Your task to perform on an android device: change the clock style Image 0: 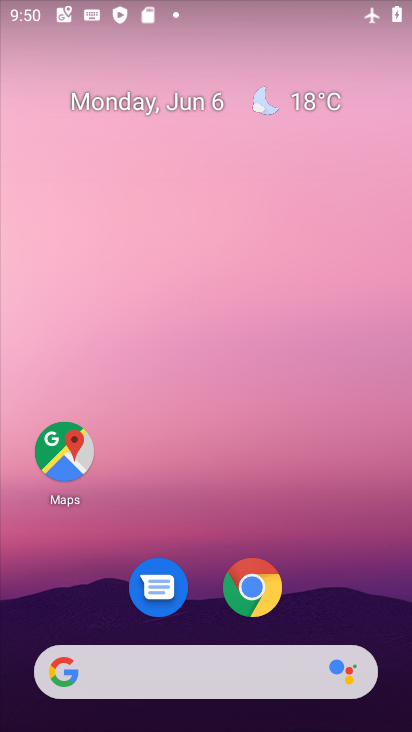
Step 0: drag from (338, 554) to (300, 132)
Your task to perform on an android device: change the clock style Image 1: 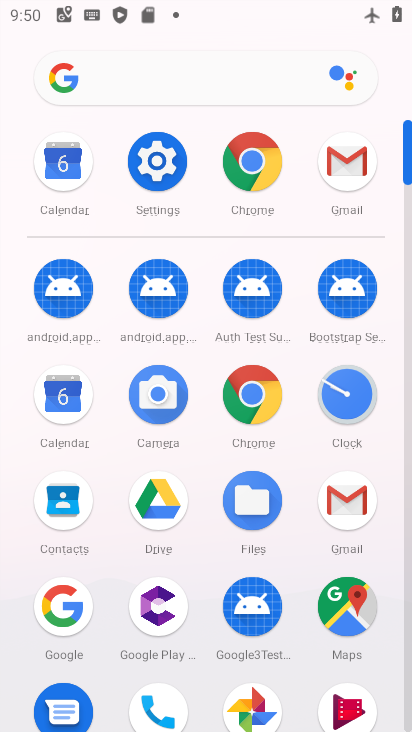
Step 1: click (352, 404)
Your task to perform on an android device: change the clock style Image 2: 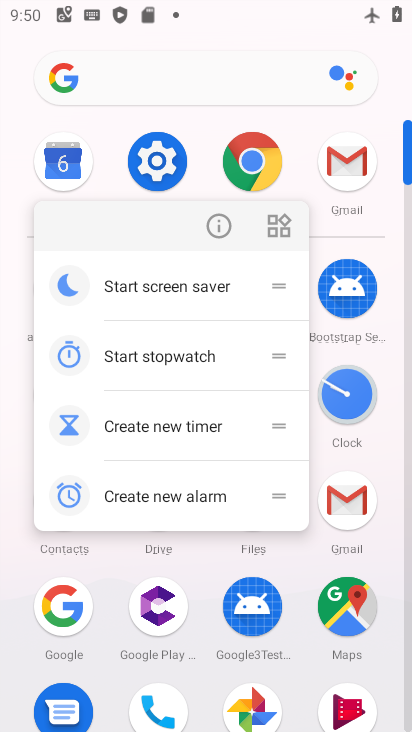
Step 2: click (341, 393)
Your task to perform on an android device: change the clock style Image 3: 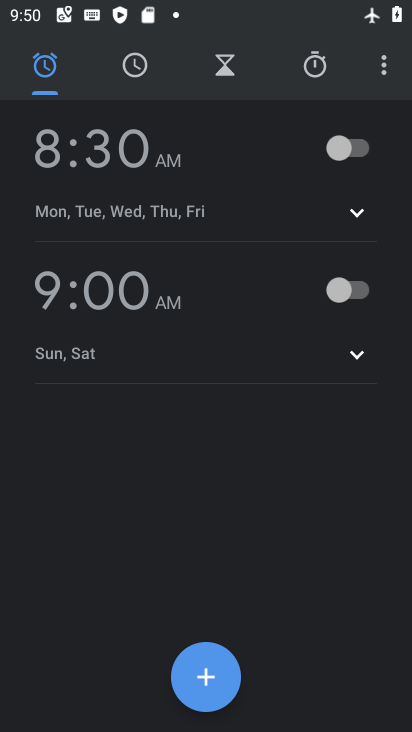
Step 3: click (378, 79)
Your task to perform on an android device: change the clock style Image 4: 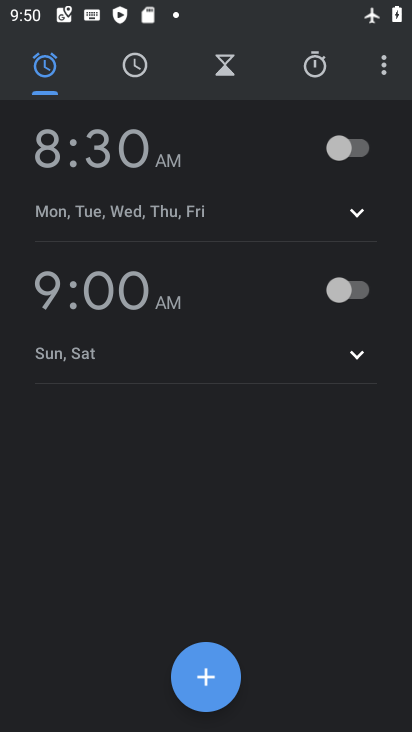
Step 4: click (378, 64)
Your task to perform on an android device: change the clock style Image 5: 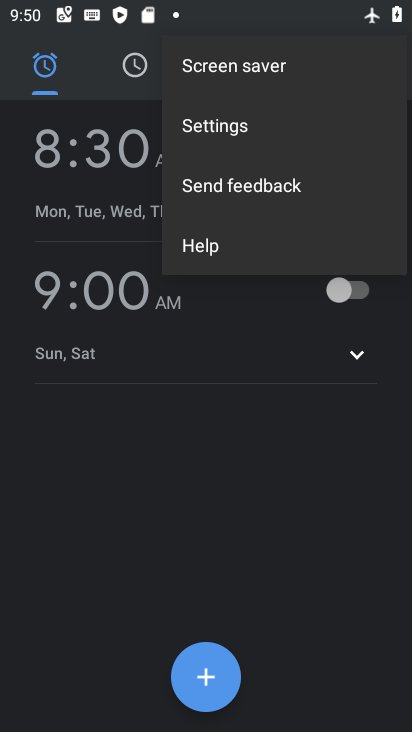
Step 5: click (260, 121)
Your task to perform on an android device: change the clock style Image 6: 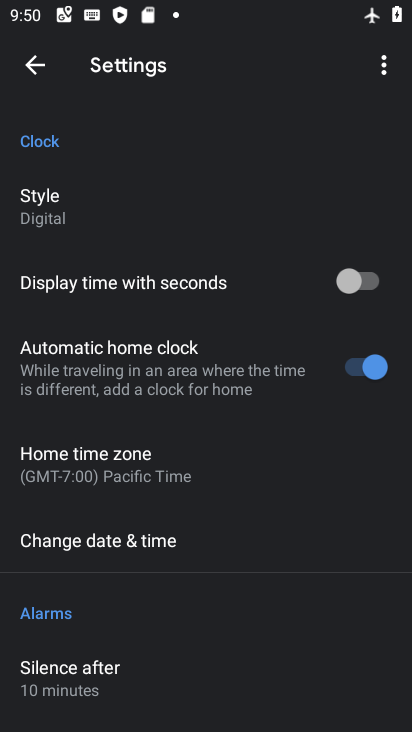
Step 6: click (66, 200)
Your task to perform on an android device: change the clock style Image 7: 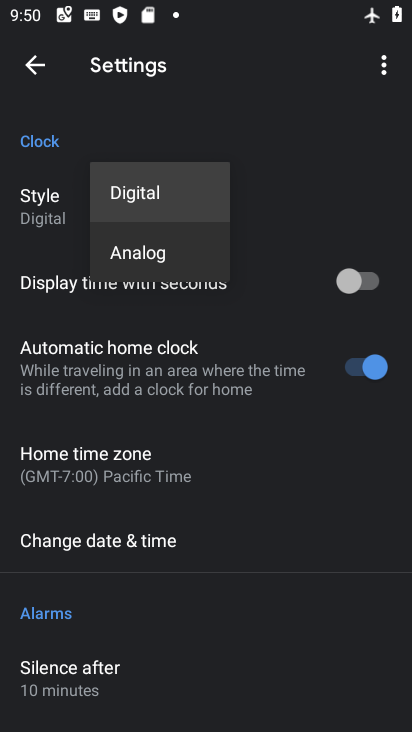
Step 7: click (125, 280)
Your task to perform on an android device: change the clock style Image 8: 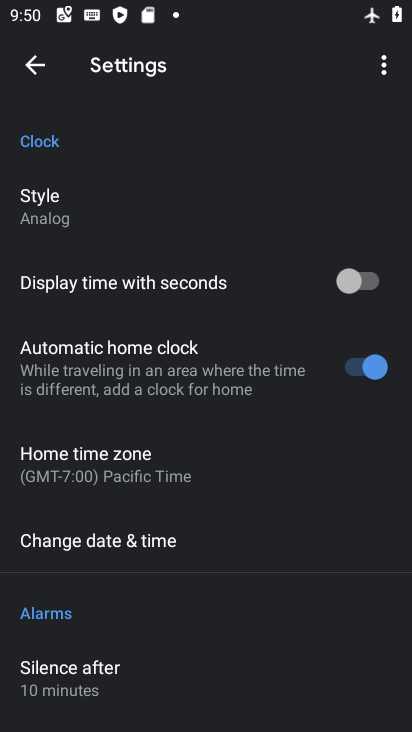
Step 8: task complete